Your task to perform on an android device: snooze an email in the gmail app Image 0: 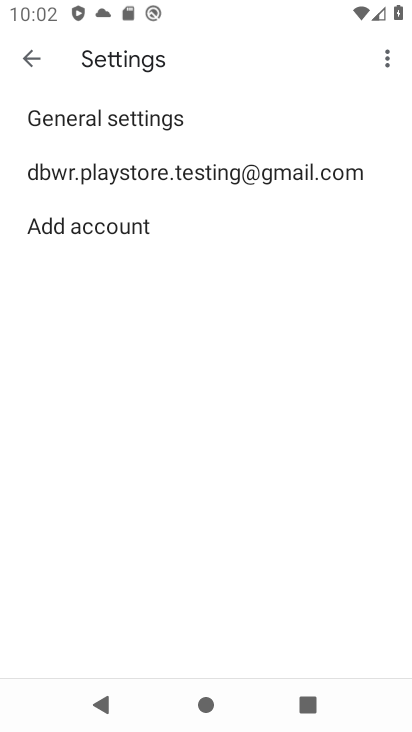
Step 0: press home button
Your task to perform on an android device: snooze an email in the gmail app Image 1: 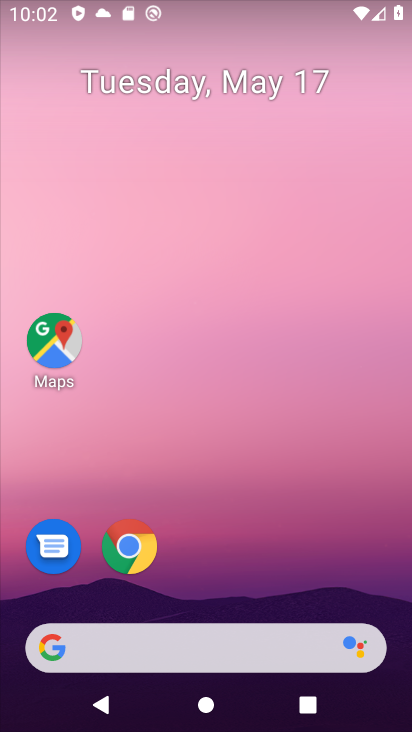
Step 1: drag from (236, 597) to (223, 333)
Your task to perform on an android device: snooze an email in the gmail app Image 2: 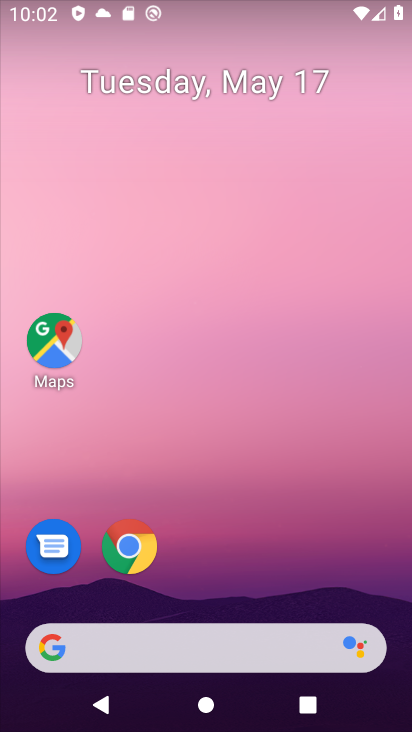
Step 2: drag from (237, 606) to (235, 345)
Your task to perform on an android device: snooze an email in the gmail app Image 3: 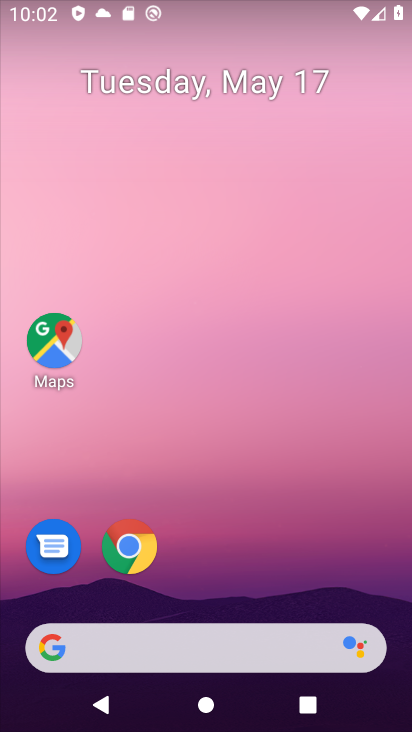
Step 3: drag from (219, 632) to (203, 245)
Your task to perform on an android device: snooze an email in the gmail app Image 4: 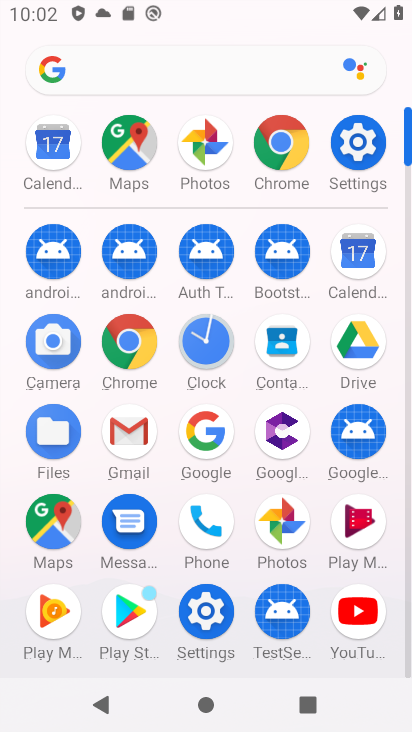
Step 4: drag from (234, 533) to (263, 322)
Your task to perform on an android device: snooze an email in the gmail app Image 5: 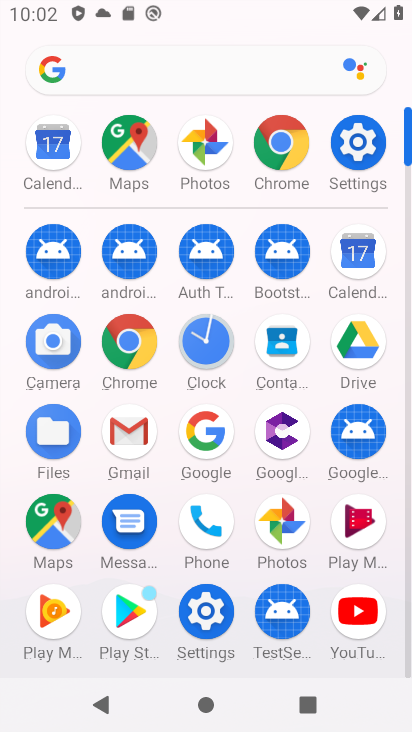
Step 5: click (134, 427)
Your task to perform on an android device: snooze an email in the gmail app Image 6: 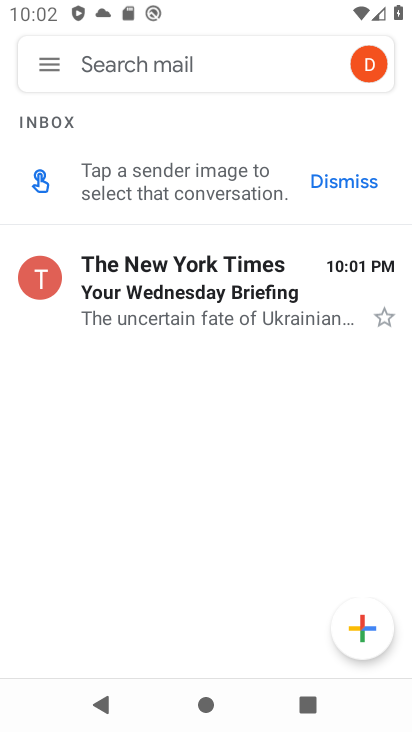
Step 6: click (36, 64)
Your task to perform on an android device: snooze an email in the gmail app Image 7: 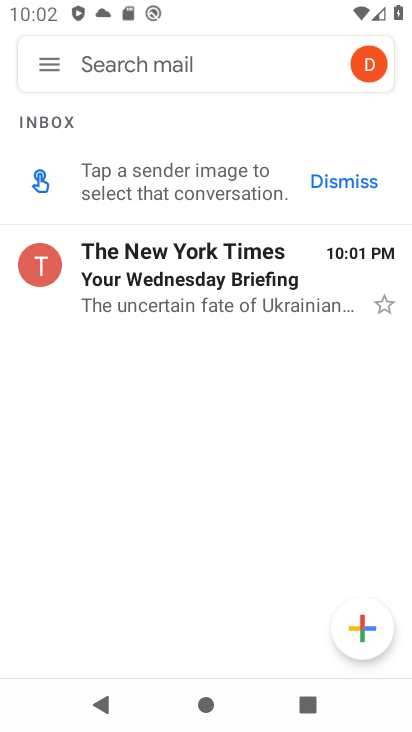
Step 7: click (51, 58)
Your task to perform on an android device: snooze an email in the gmail app Image 8: 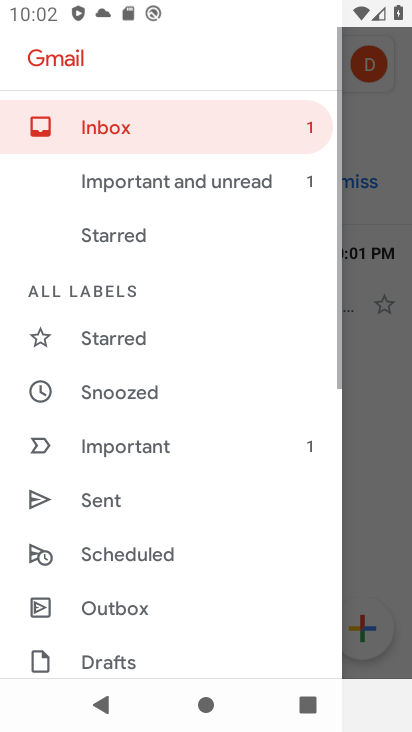
Step 8: click (141, 385)
Your task to perform on an android device: snooze an email in the gmail app Image 9: 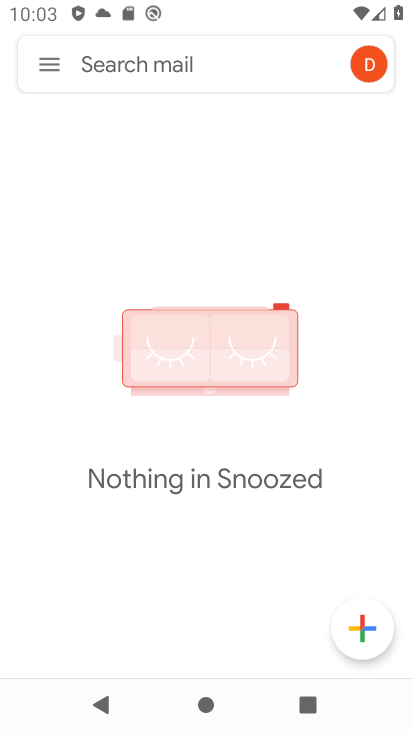
Step 9: task complete